Your task to perform on an android device: Show me the alarms in the clock app Image 0: 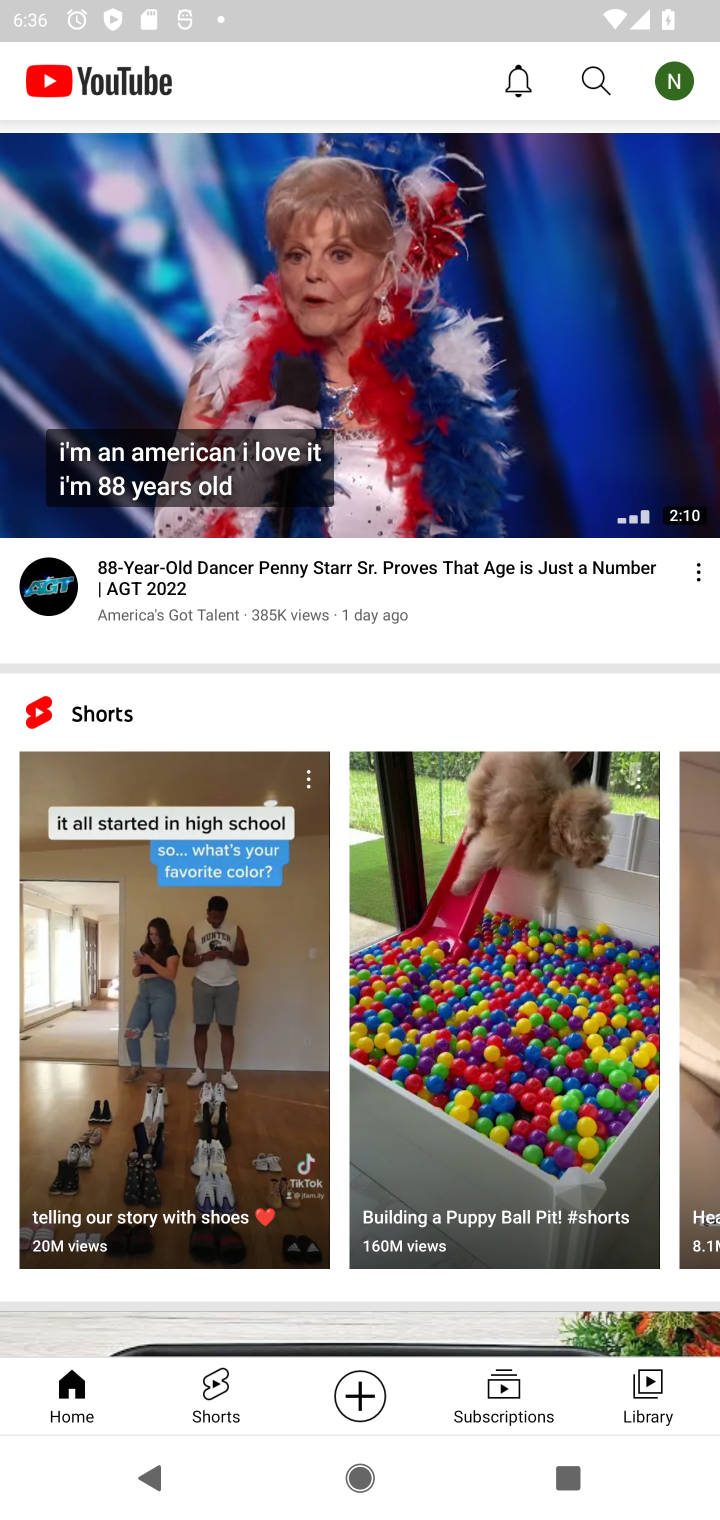
Step 0: press home button
Your task to perform on an android device: Show me the alarms in the clock app Image 1: 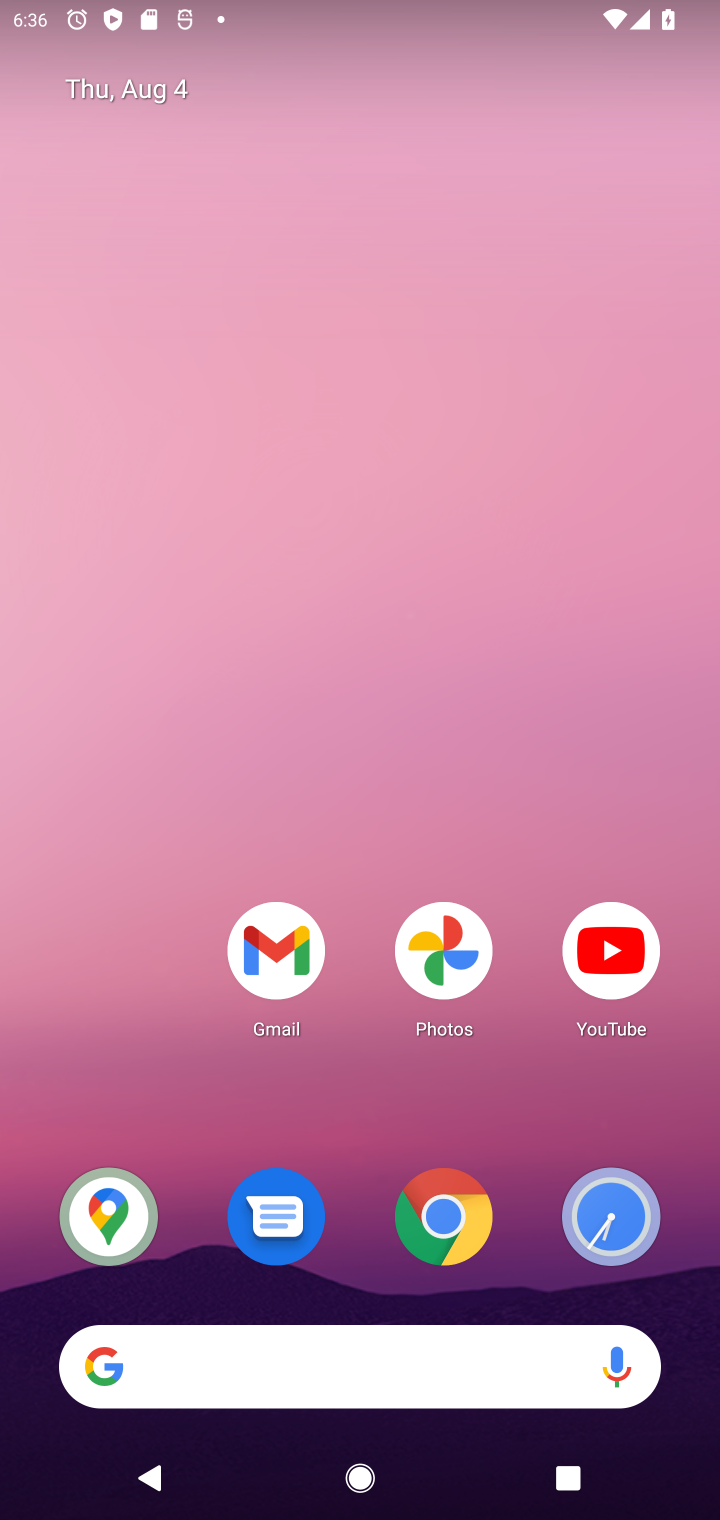
Step 1: drag from (373, 1138) to (423, 718)
Your task to perform on an android device: Show me the alarms in the clock app Image 2: 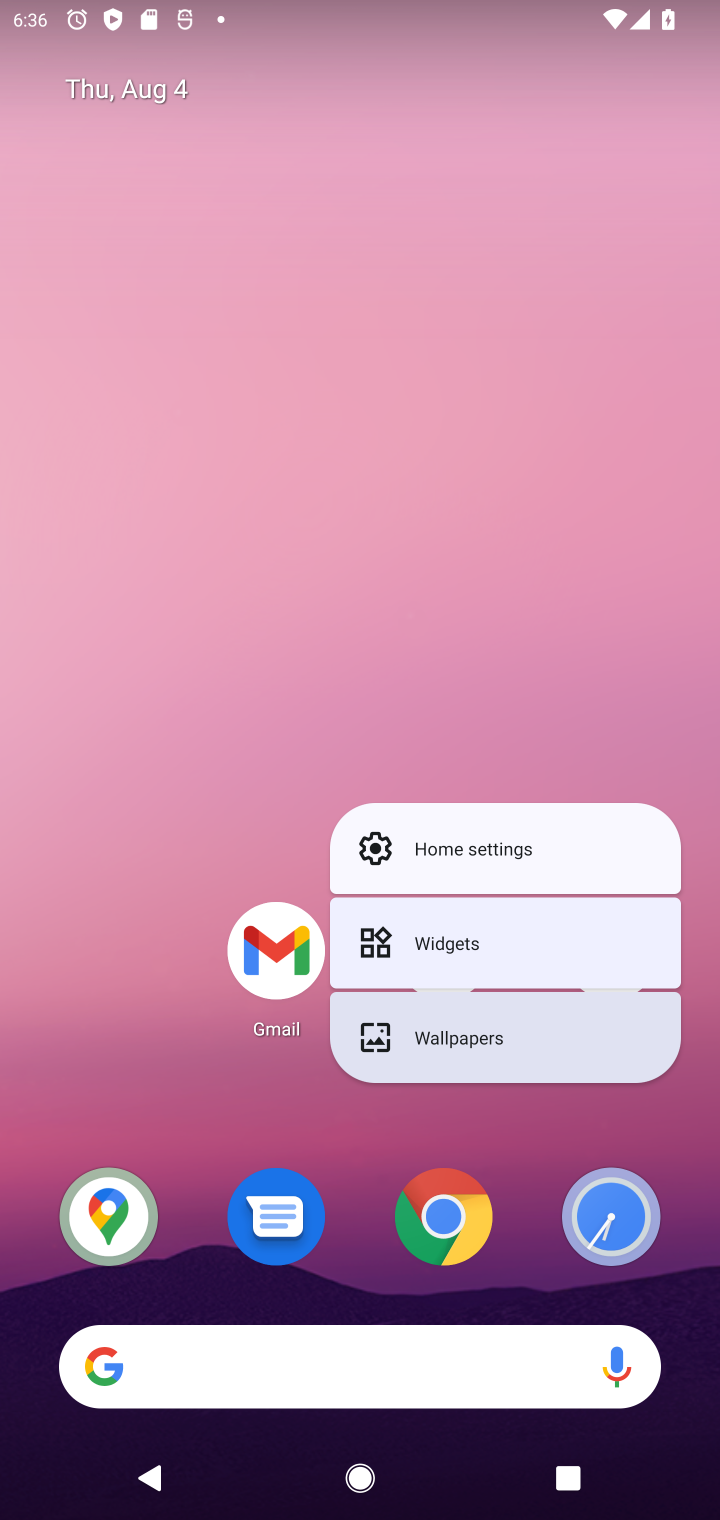
Step 2: click (404, 729)
Your task to perform on an android device: Show me the alarms in the clock app Image 3: 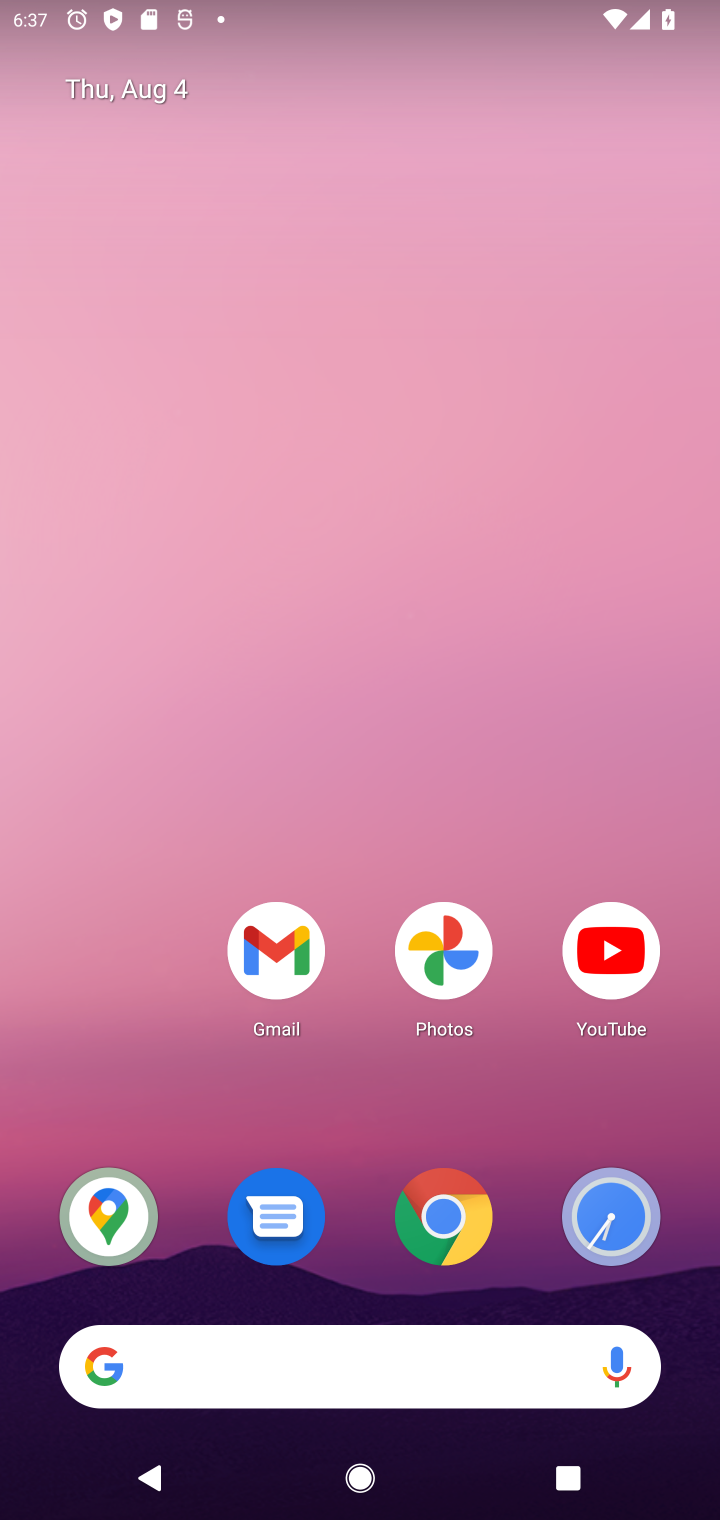
Step 3: drag from (330, 1187) to (398, 336)
Your task to perform on an android device: Show me the alarms in the clock app Image 4: 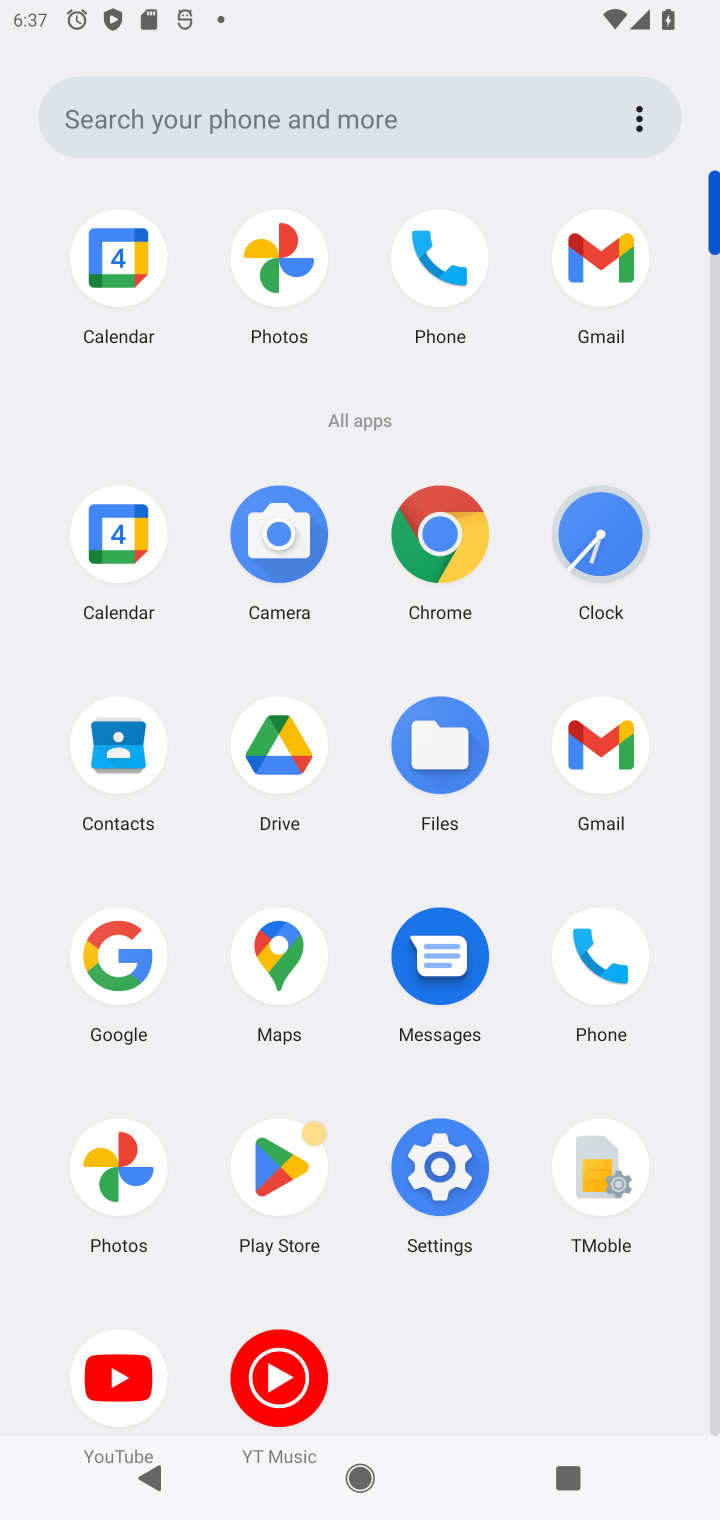
Step 4: click (628, 543)
Your task to perform on an android device: Show me the alarms in the clock app Image 5: 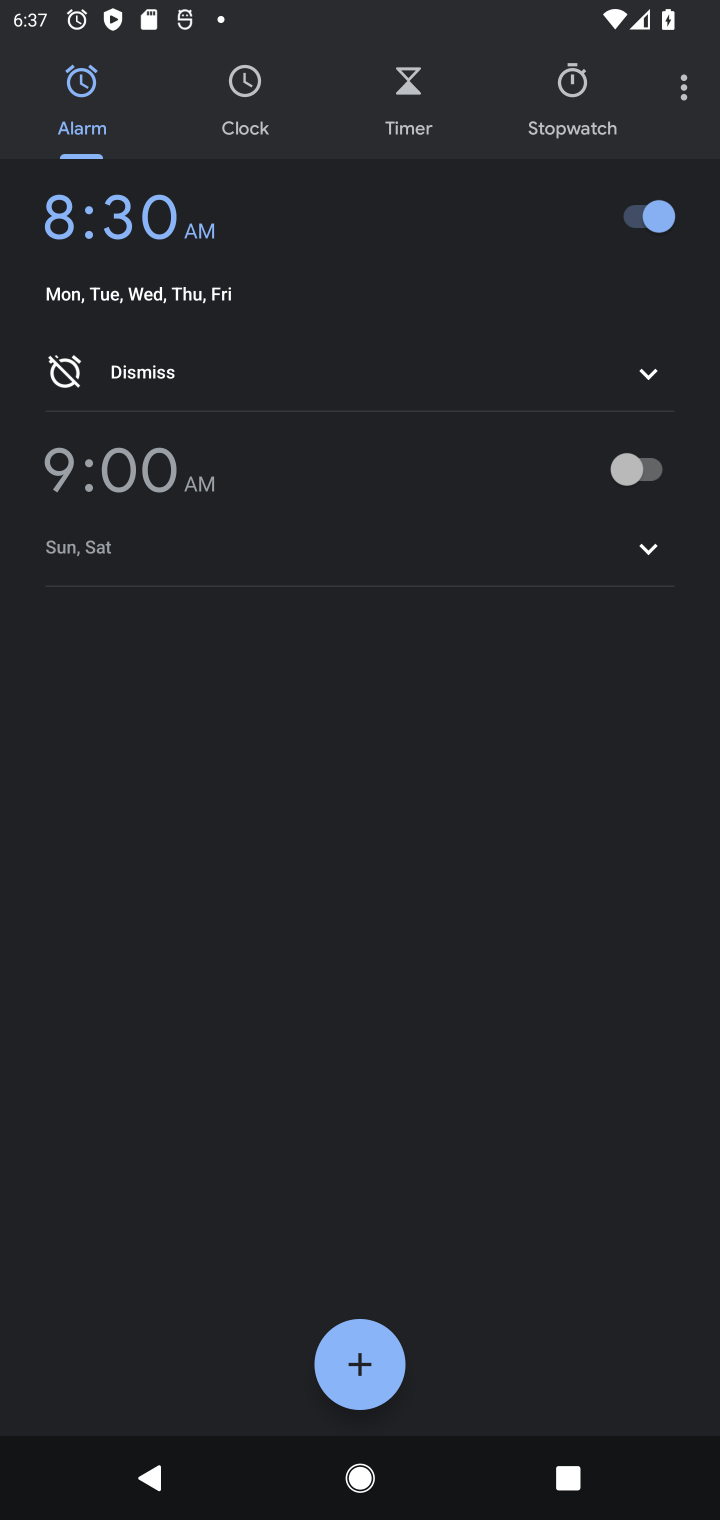
Step 5: task complete